Your task to perform on an android device: search for starred emails in the gmail app Image 0: 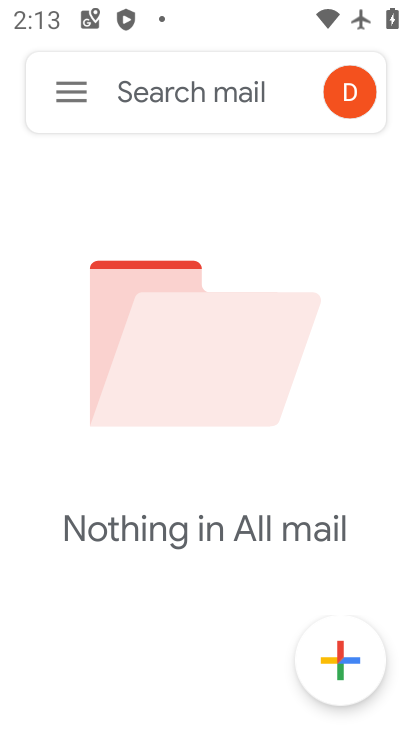
Step 0: click (80, 89)
Your task to perform on an android device: search for starred emails in the gmail app Image 1: 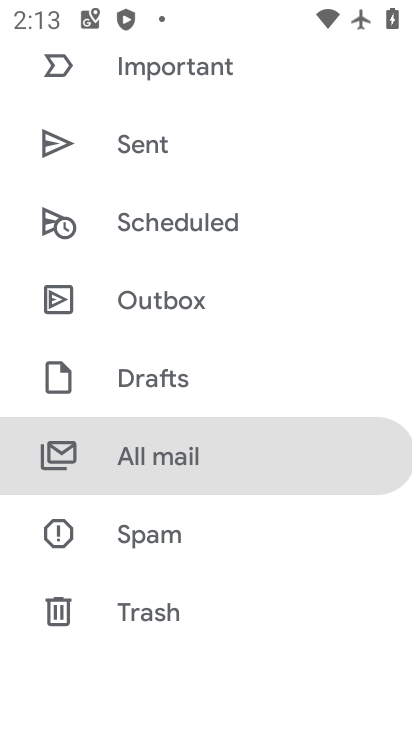
Step 1: drag from (151, 165) to (151, 476)
Your task to perform on an android device: search for starred emails in the gmail app Image 2: 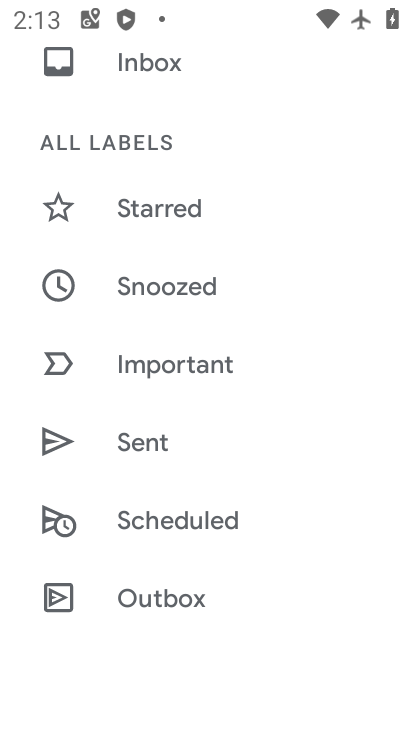
Step 2: click (151, 221)
Your task to perform on an android device: search for starred emails in the gmail app Image 3: 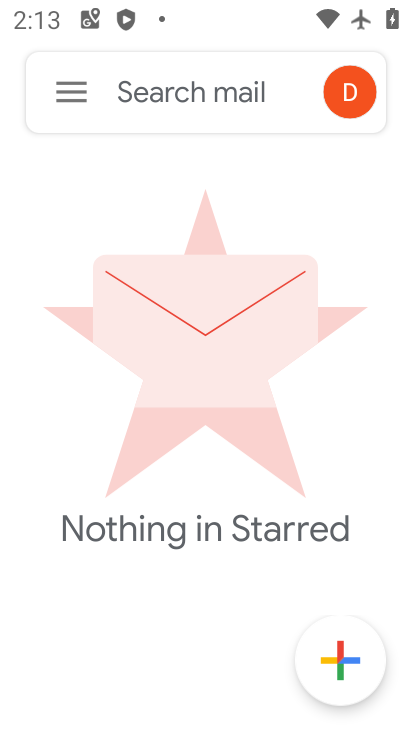
Step 3: task complete